Your task to perform on an android device: Open CNN.com Image 0: 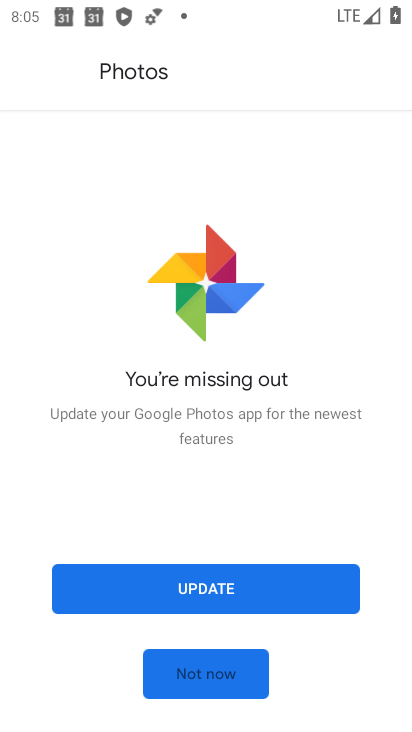
Step 0: press home button
Your task to perform on an android device: Open CNN.com Image 1: 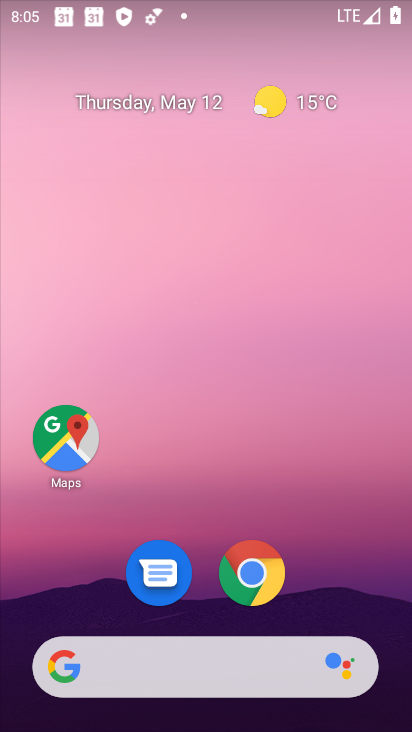
Step 1: click (249, 581)
Your task to perform on an android device: Open CNN.com Image 2: 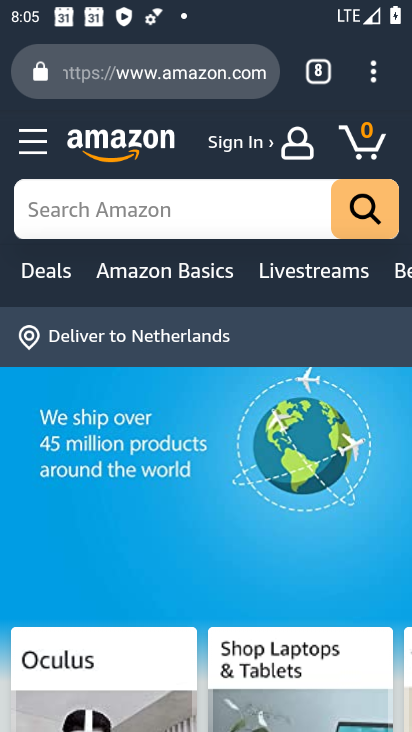
Step 2: click (375, 62)
Your task to perform on an android device: Open CNN.com Image 3: 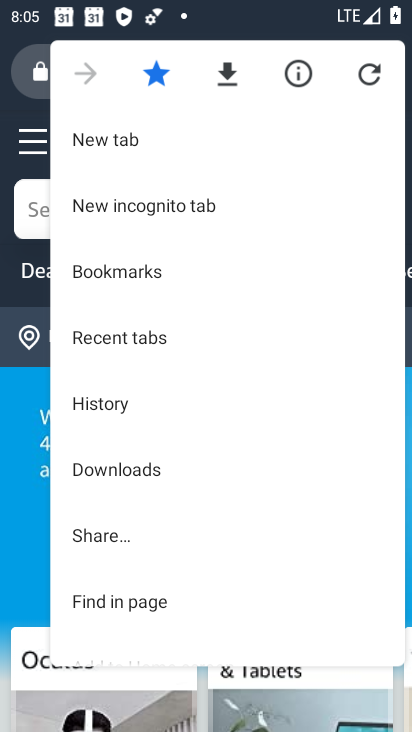
Step 3: click (115, 139)
Your task to perform on an android device: Open CNN.com Image 4: 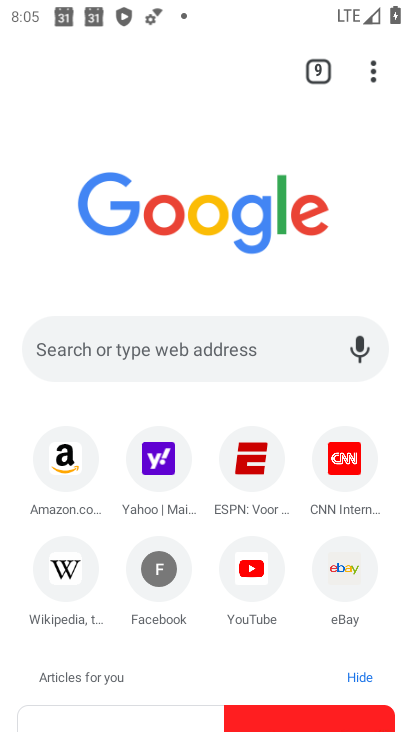
Step 4: click (117, 346)
Your task to perform on an android device: Open CNN.com Image 5: 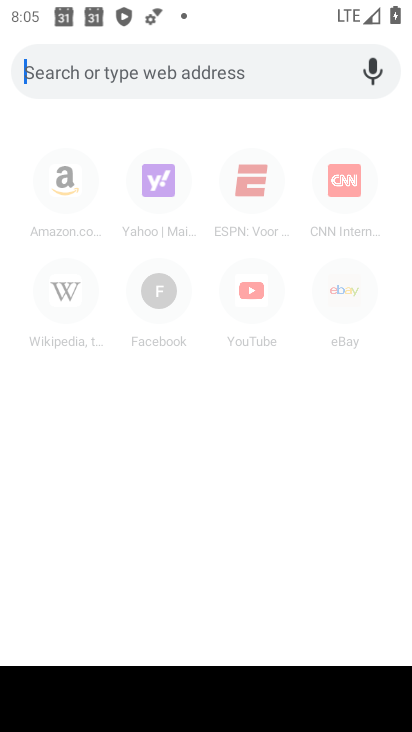
Step 5: type "cnn.com"
Your task to perform on an android device: Open CNN.com Image 6: 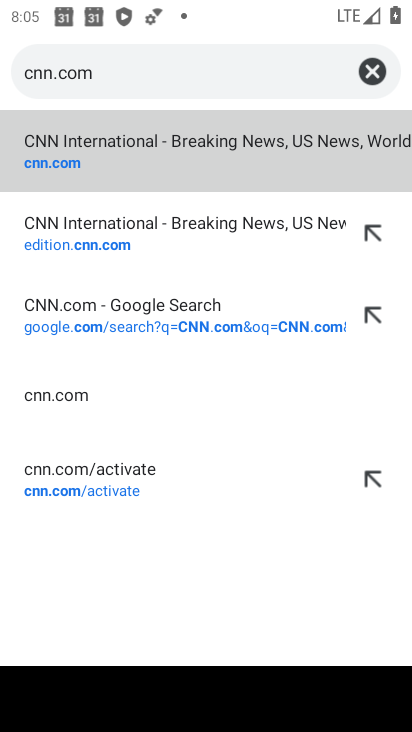
Step 6: click (202, 144)
Your task to perform on an android device: Open CNN.com Image 7: 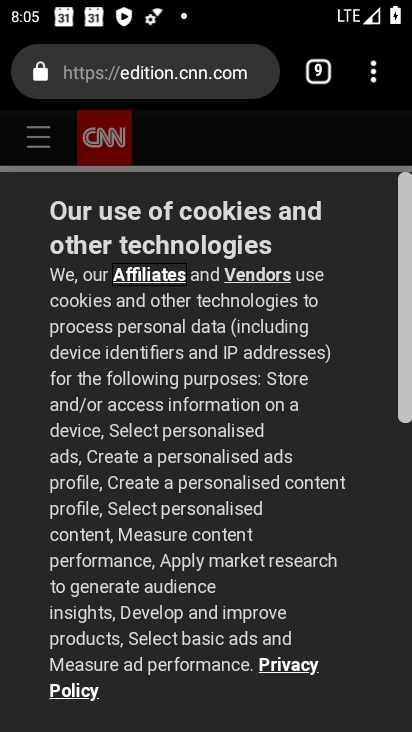
Step 7: task complete